Your task to perform on an android device: change the clock display to digital Image 0: 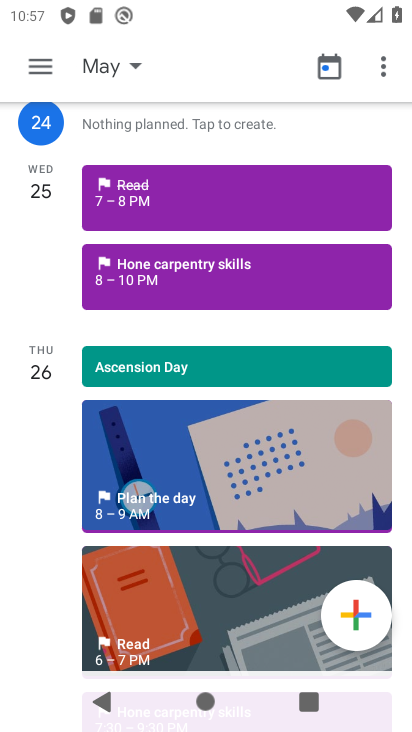
Step 0: press home button
Your task to perform on an android device: change the clock display to digital Image 1: 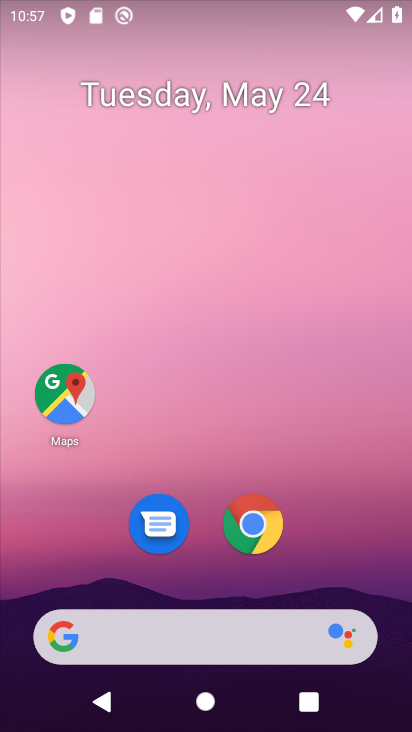
Step 1: drag from (211, 455) to (232, 56)
Your task to perform on an android device: change the clock display to digital Image 2: 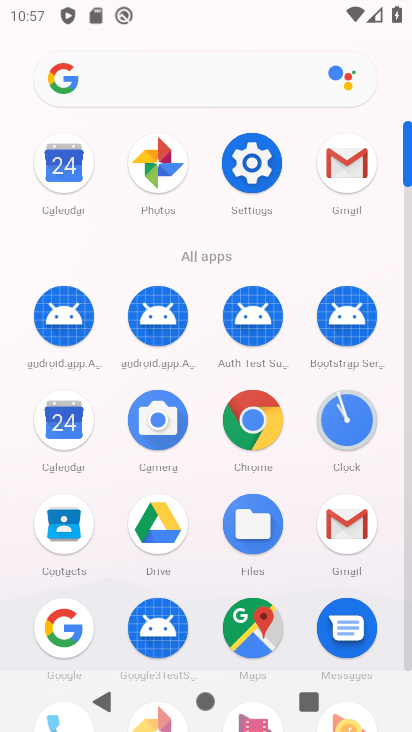
Step 2: click (346, 417)
Your task to perform on an android device: change the clock display to digital Image 3: 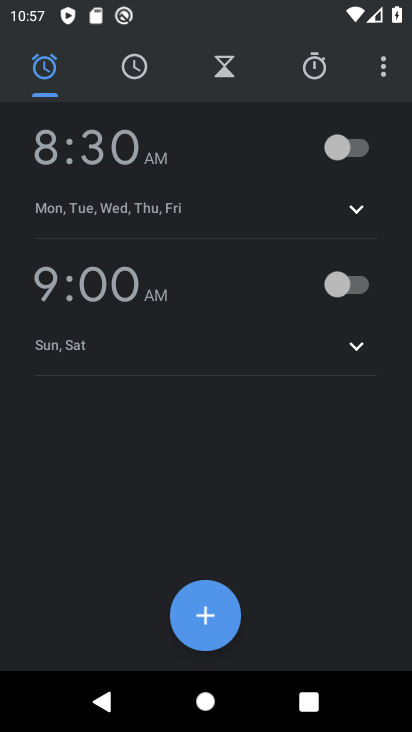
Step 3: click (132, 66)
Your task to perform on an android device: change the clock display to digital Image 4: 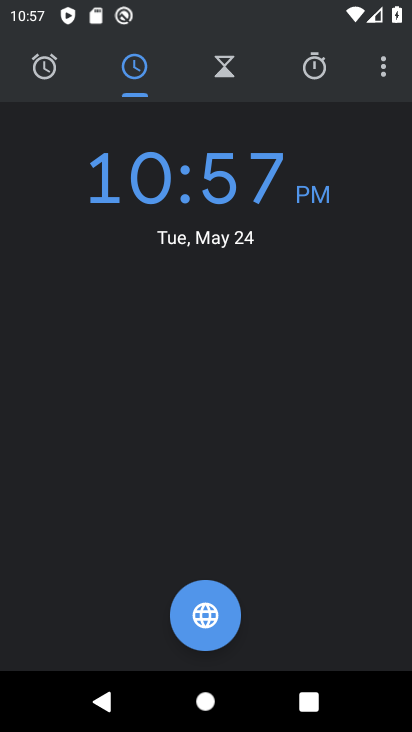
Step 4: click (376, 73)
Your task to perform on an android device: change the clock display to digital Image 5: 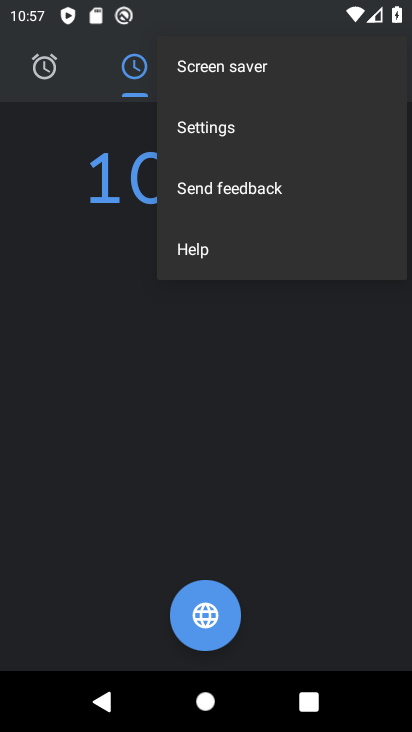
Step 5: click (275, 121)
Your task to perform on an android device: change the clock display to digital Image 6: 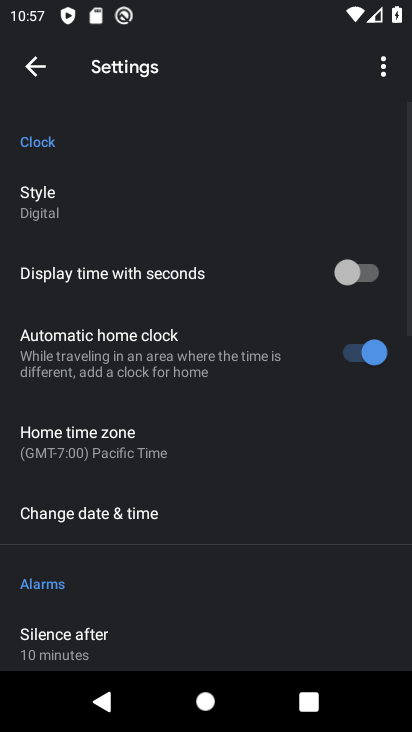
Step 6: click (135, 213)
Your task to perform on an android device: change the clock display to digital Image 7: 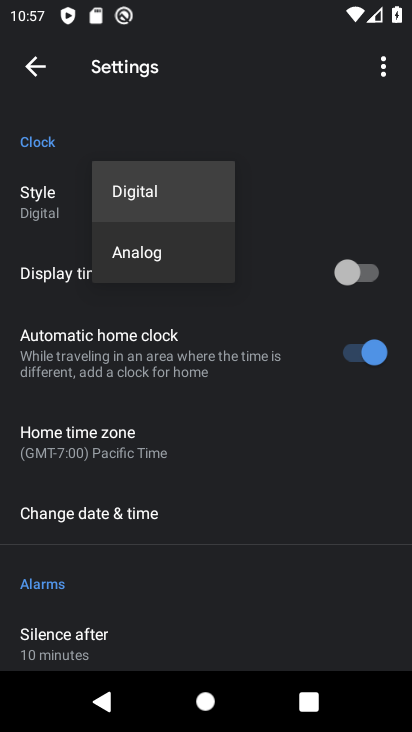
Step 7: click (151, 237)
Your task to perform on an android device: change the clock display to digital Image 8: 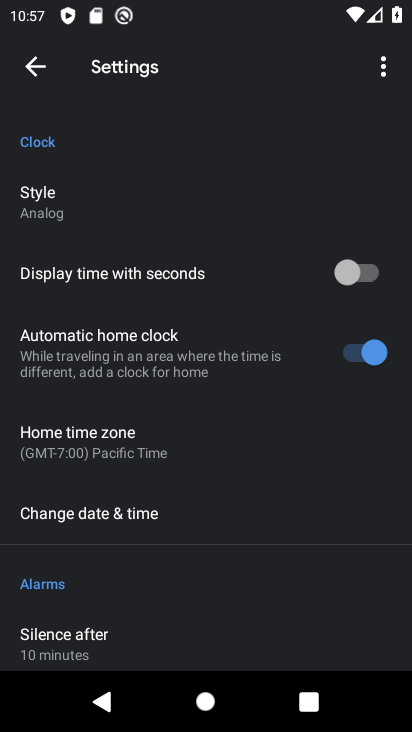
Step 8: click (34, 63)
Your task to perform on an android device: change the clock display to digital Image 9: 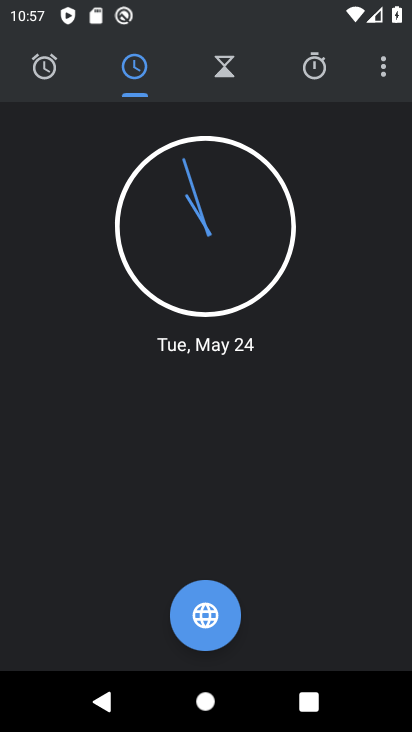
Step 9: task complete